Your task to perform on an android device: move a message to another label in the gmail app Image 0: 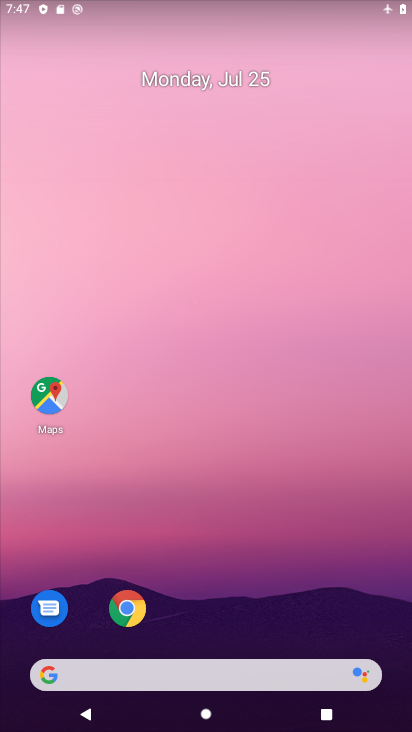
Step 0: drag from (321, 603) to (313, 117)
Your task to perform on an android device: move a message to another label in the gmail app Image 1: 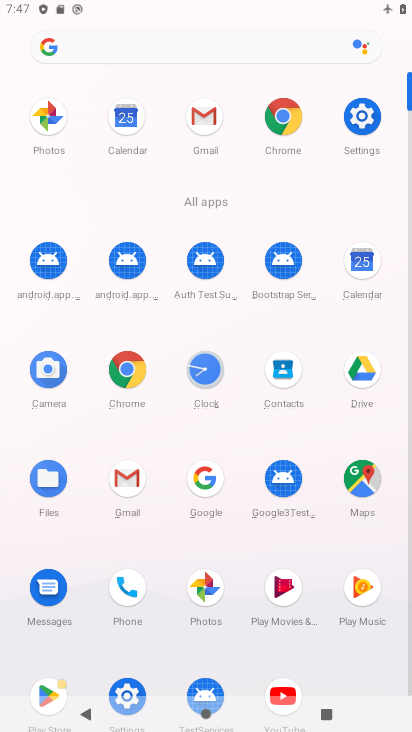
Step 1: click (201, 116)
Your task to perform on an android device: move a message to another label in the gmail app Image 2: 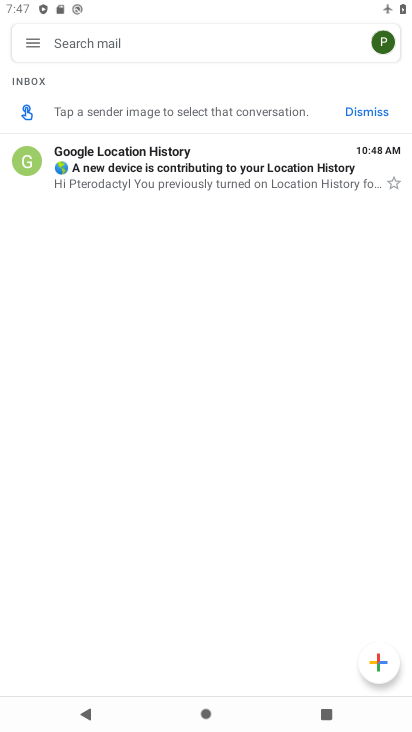
Step 2: click (38, 35)
Your task to perform on an android device: move a message to another label in the gmail app Image 3: 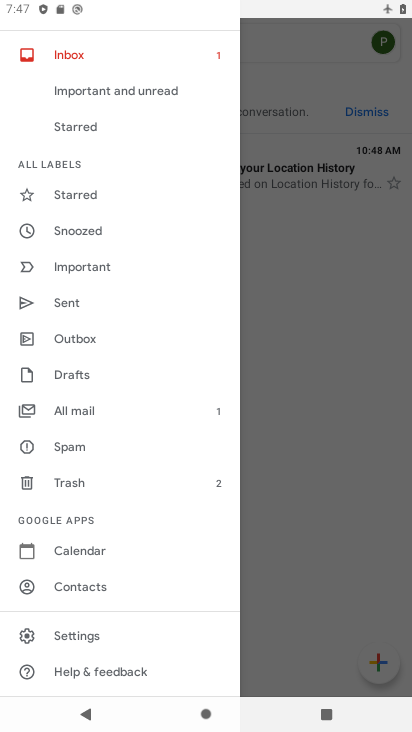
Step 3: click (367, 338)
Your task to perform on an android device: move a message to another label in the gmail app Image 4: 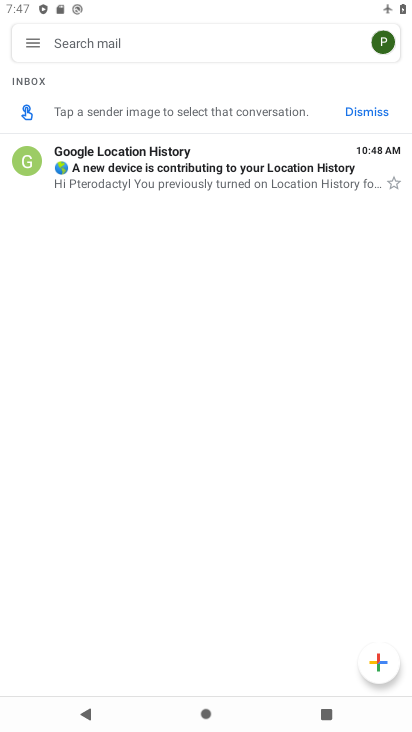
Step 4: click (133, 174)
Your task to perform on an android device: move a message to another label in the gmail app Image 5: 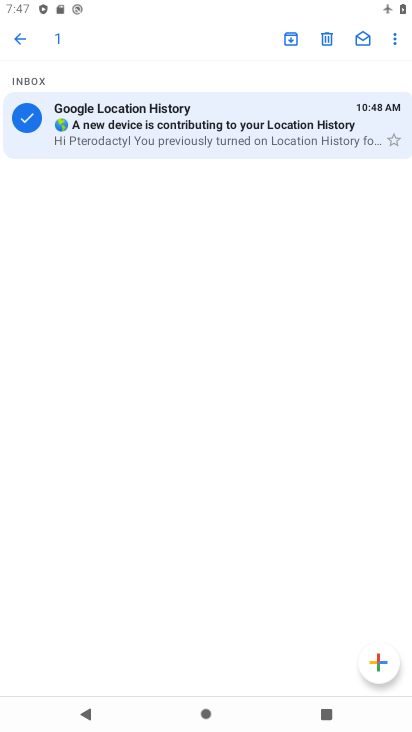
Step 5: click (395, 33)
Your task to perform on an android device: move a message to another label in the gmail app Image 6: 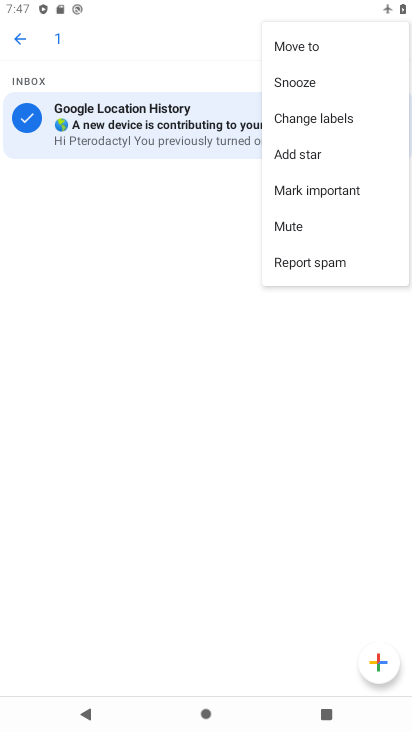
Step 6: click (293, 124)
Your task to perform on an android device: move a message to another label in the gmail app Image 7: 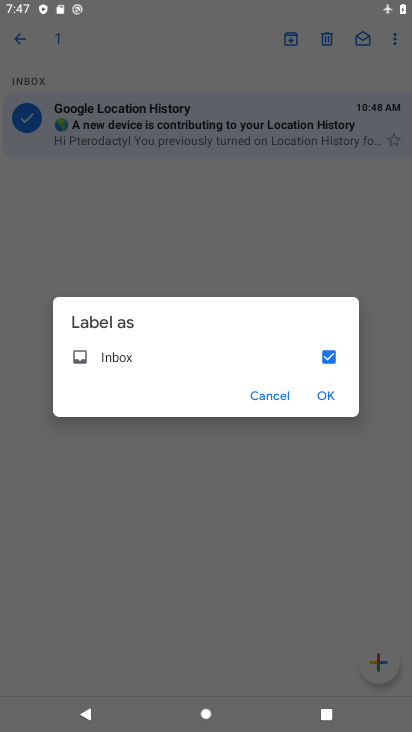
Step 7: click (327, 357)
Your task to perform on an android device: move a message to another label in the gmail app Image 8: 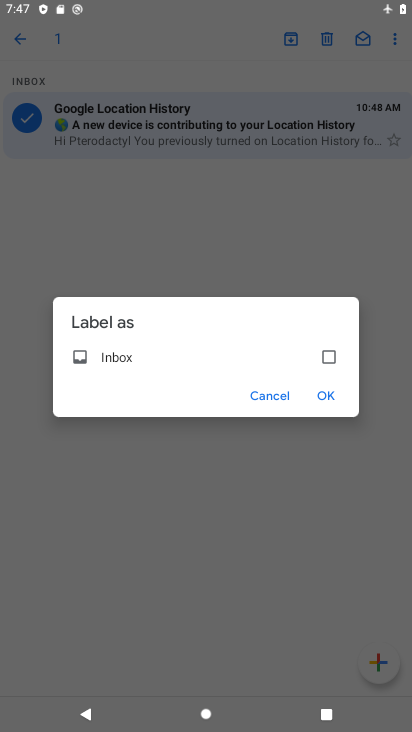
Step 8: click (323, 396)
Your task to perform on an android device: move a message to another label in the gmail app Image 9: 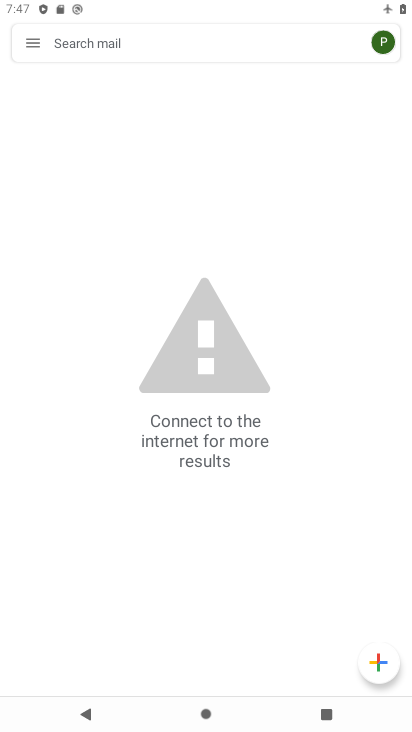
Step 9: task complete